Your task to perform on an android device: Play some music on YouTube Image 0: 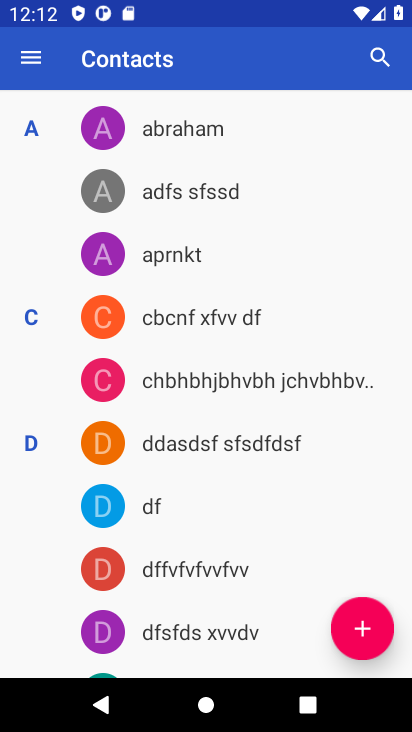
Step 0: press home button
Your task to perform on an android device: Play some music on YouTube Image 1: 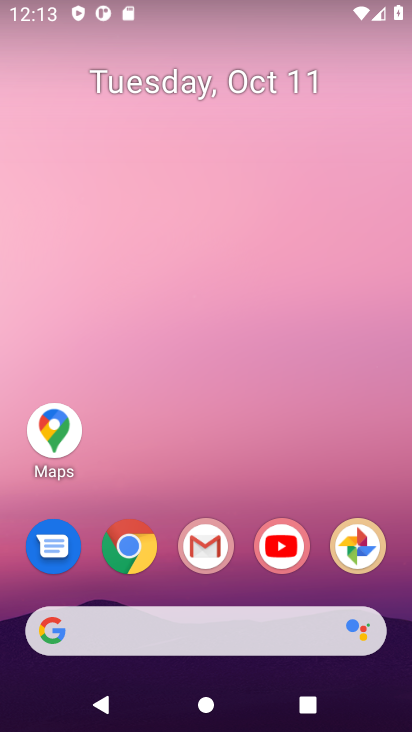
Step 1: click (274, 549)
Your task to perform on an android device: Play some music on YouTube Image 2: 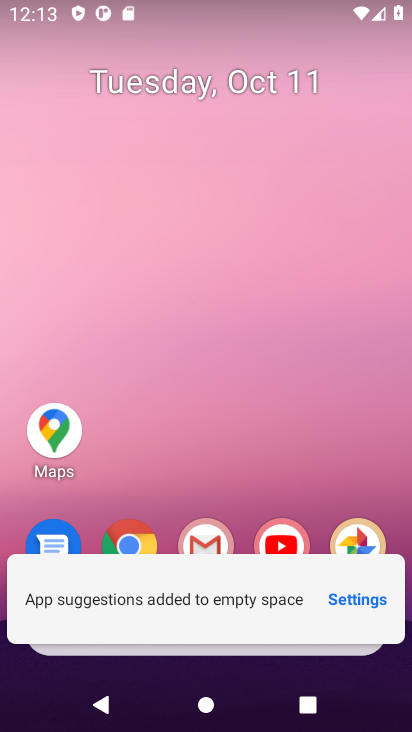
Step 2: click (282, 543)
Your task to perform on an android device: Play some music on YouTube Image 3: 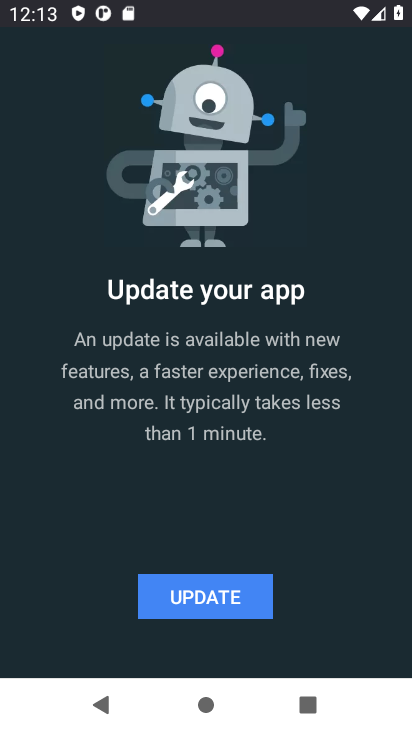
Step 3: click (226, 595)
Your task to perform on an android device: Play some music on YouTube Image 4: 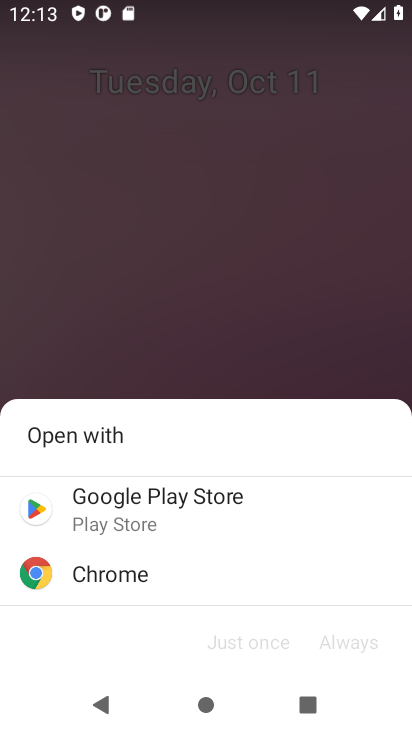
Step 4: click (142, 516)
Your task to perform on an android device: Play some music on YouTube Image 5: 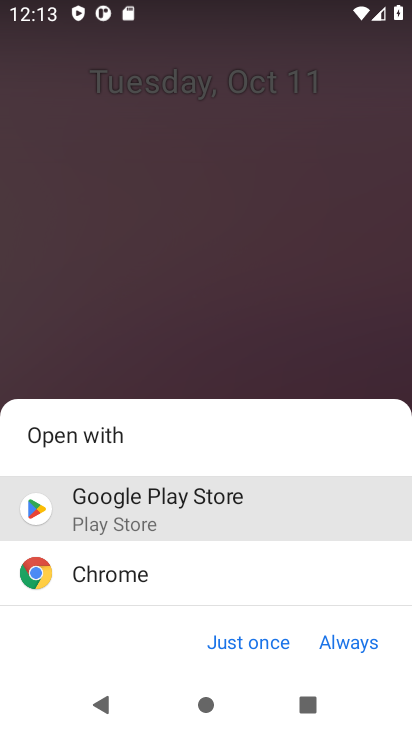
Step 5: click (253, 647)
Your task to perform on an android device: Play some music on YouTube Image 6: 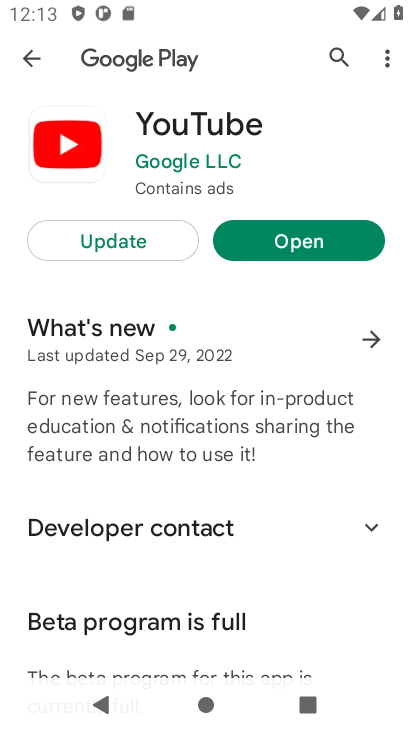
Step 6: click (313, 235)
Your task to perform on an android device: Play some music on YouTube Image 7: 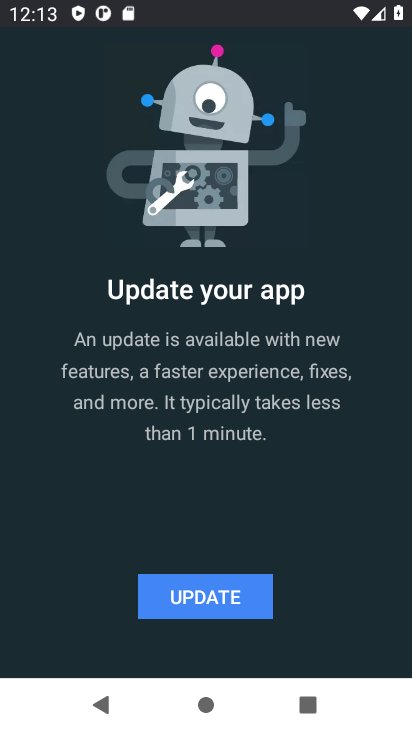
Step 7: click (207, 605)
Your task to perform on an android device: Play some music on YouTube Image 8: 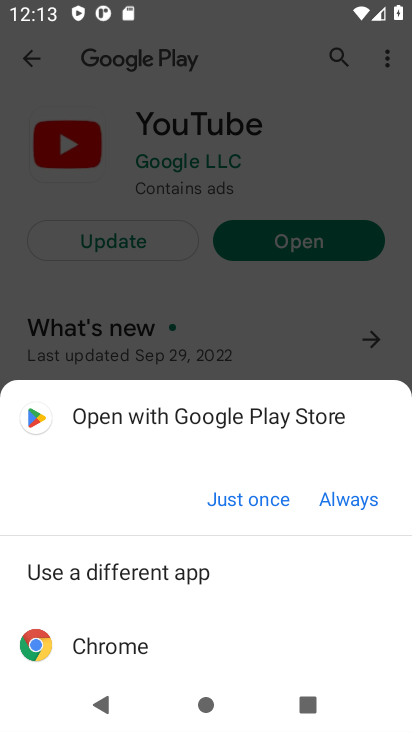
Step 8: click (243, 497)
Your task to perform on an android device: Play some music on YouTube Image 9: 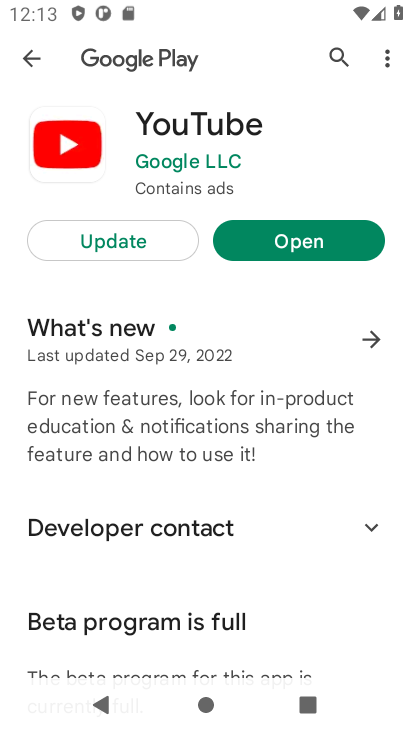
Step 9: click (115, 233)
Your task to perform on an android device: Play some music on YouTube Image 10: 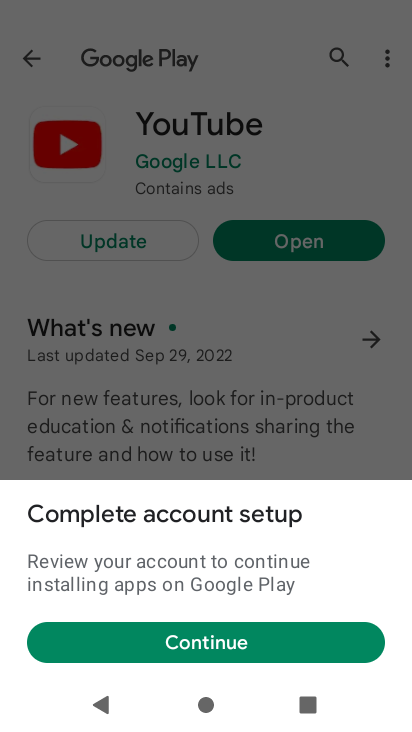
Step 10: click (213, 646)
Your task to perform on an android device: Play some music on YouTube Image 11: 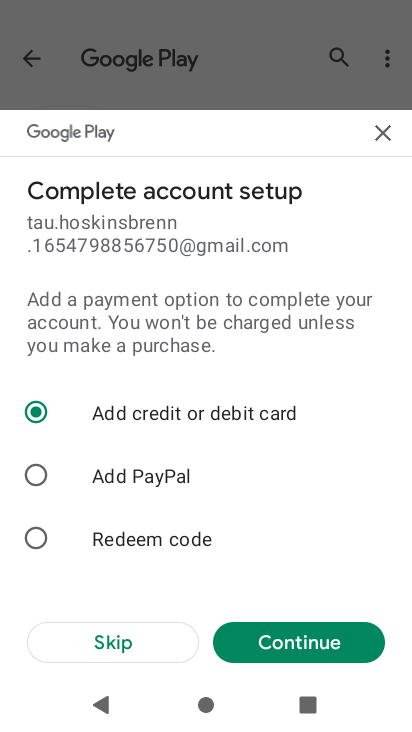
Step 11: click (113, 644)
Your task to perform on an android device: Play some music on YouTube Image 12: 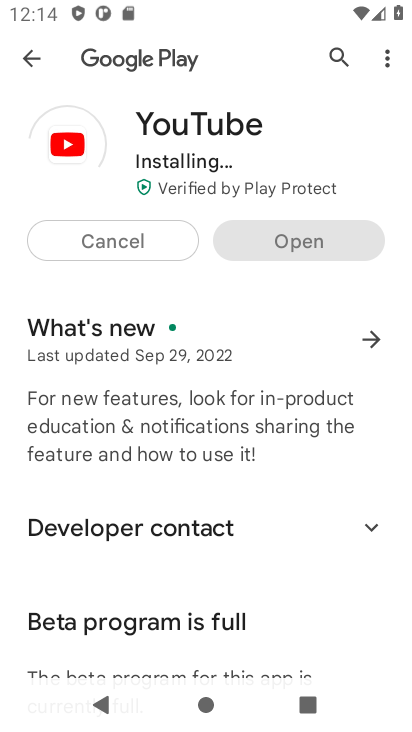
Step 12: drag from (265, 432) to (285, 373)
Your task to perform on an android device: Play some music on YouTube Image 13: 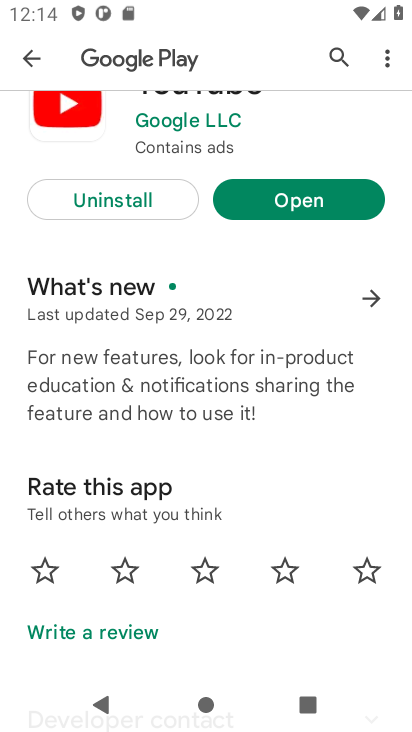
Step 13: click (298, 212)
Your task to perform on an android device: Play some music on YouTube Image 14: 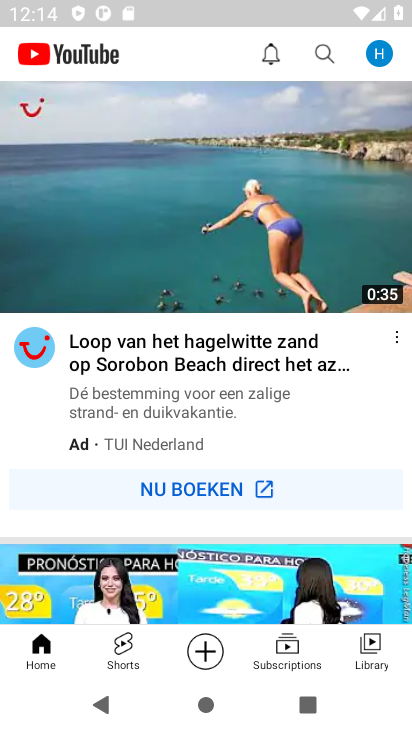
Step 14: click (325, 55)
Your task to perform on an android device: Play some music on YouTube Image 15: 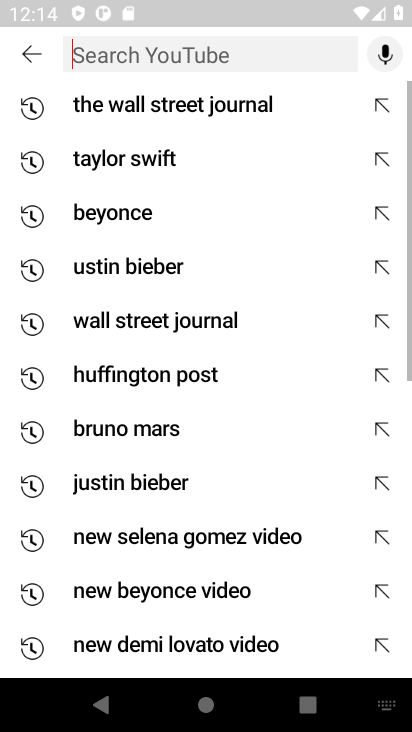
Step 15: click (29, 55)
Your task to perform on an android device: Play some music on YouTube Image 16: 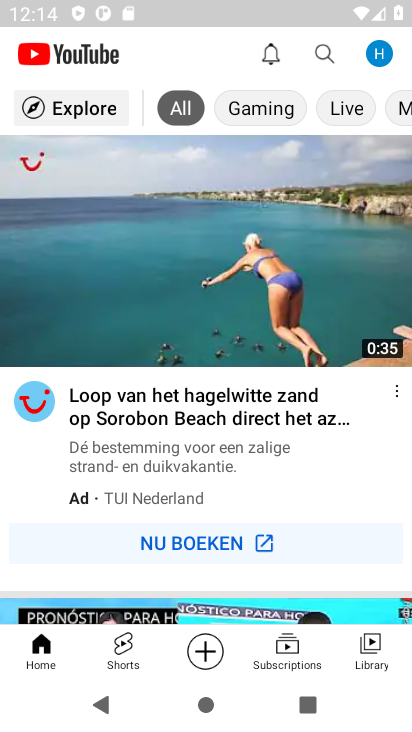
Step 16: drag from (348, 108) to (235, 112)
Your task to perform on an android device: Play some music on YouTube Image 17: 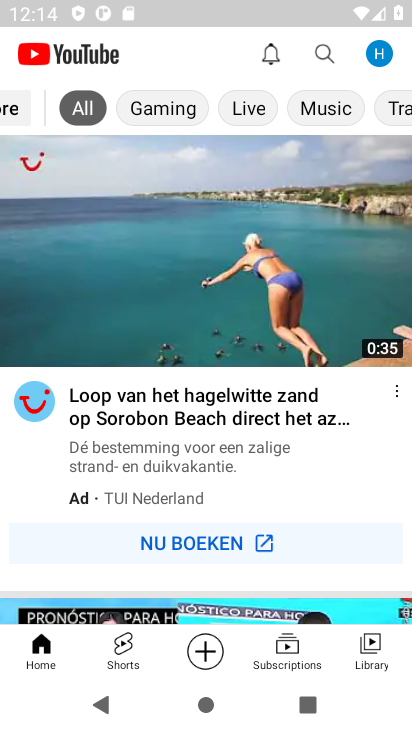
Step 17: click (314, 110)
Your task to perform on an android device: Play some music on YouTube Image 18: 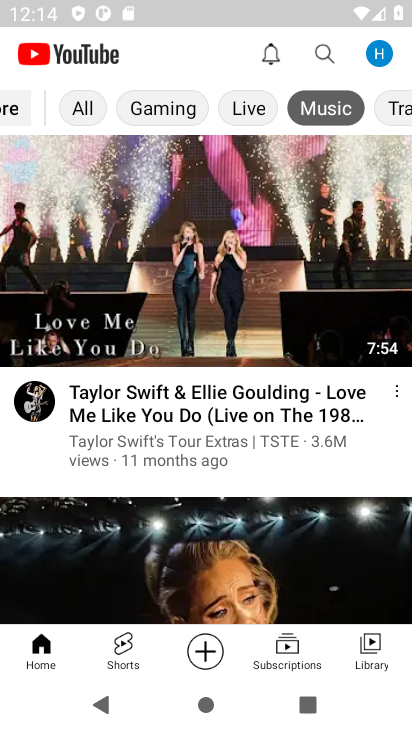
Step 18: click (297, 316)
Your task to perform on an android device: Play some music on YouTube Image 19: 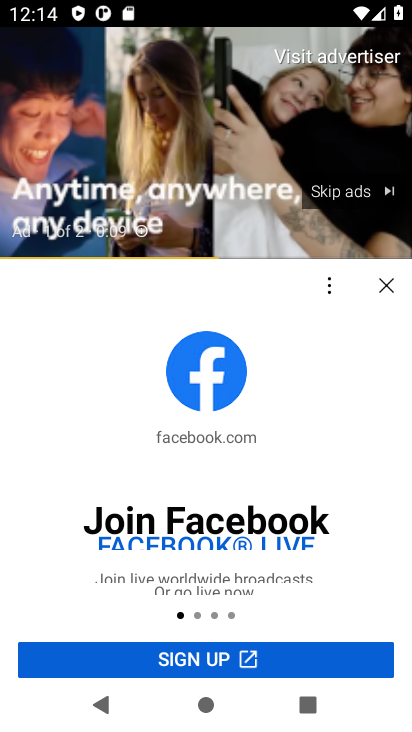
Step 19: click (365, 189)
Your task to perform on an android device: Play some music on YouTube Image 20: 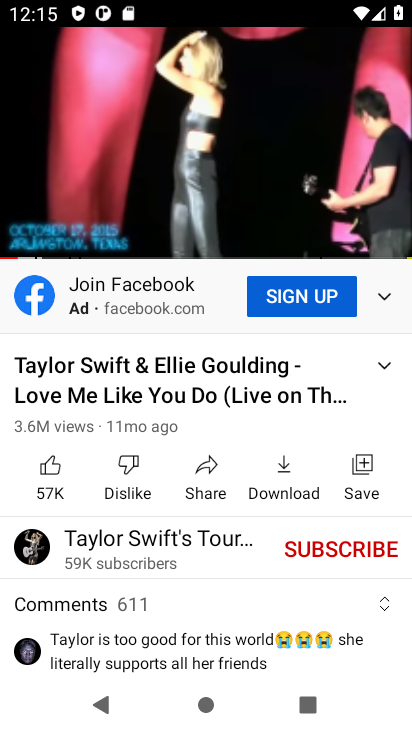
Step 20: task complete